Your task to perform on an android device: toggle location history Image 0: 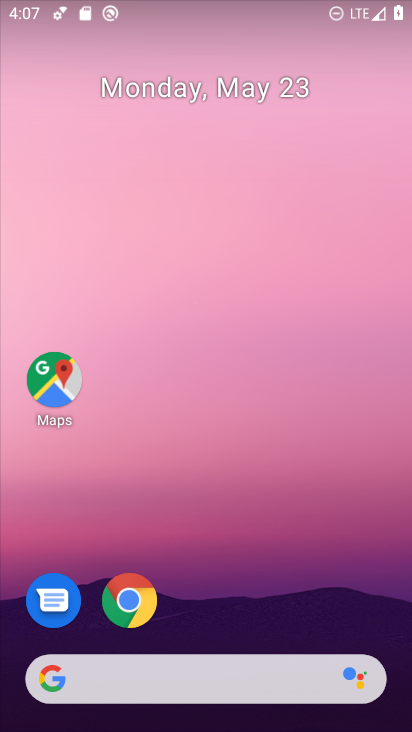
Step 0: click (56, 380)
Your task to perform on an android device: toggle location history Image 1: 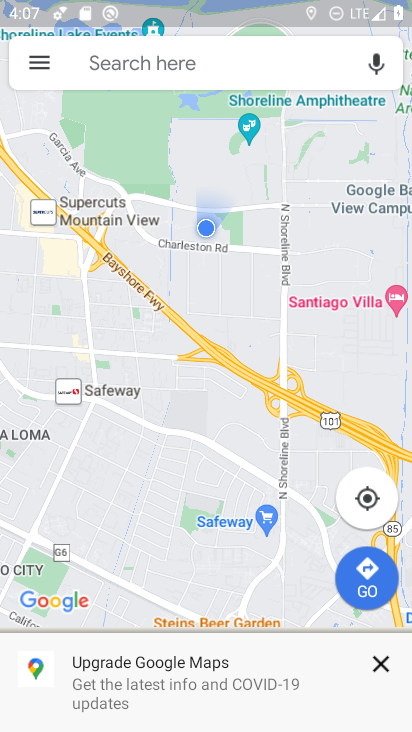
Step 1: click (37, 60)
Your task to perform on an android device: toggle location history Image 2: 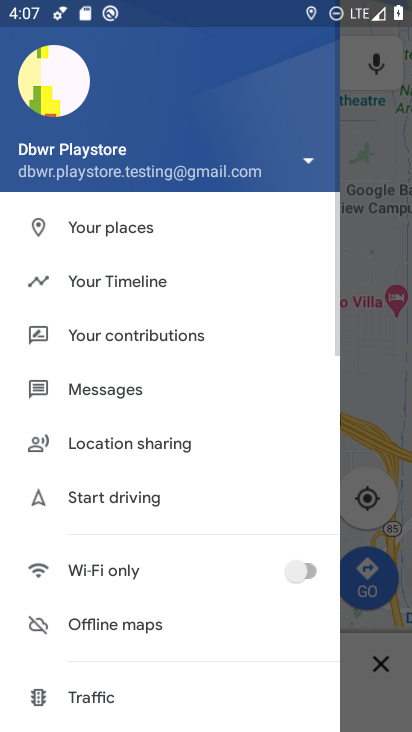
Step 2: click (103, 286)
Your task to perform on an android device: toggle location history Image 3: 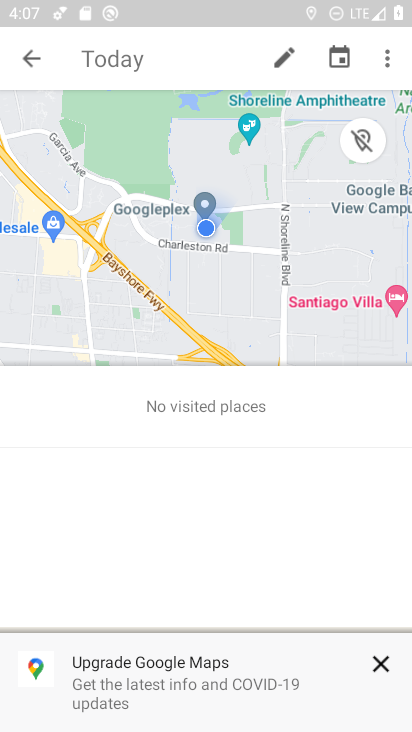
Step 3: click (386, 55)
Your task to perform on an android device: toggle location history Image 4: 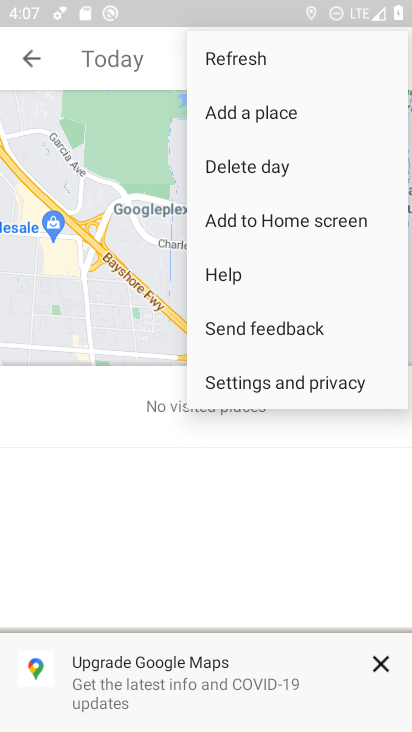
Step 4: click (235, 380)
Your task to perform on an android device: toggle location history Image 5: 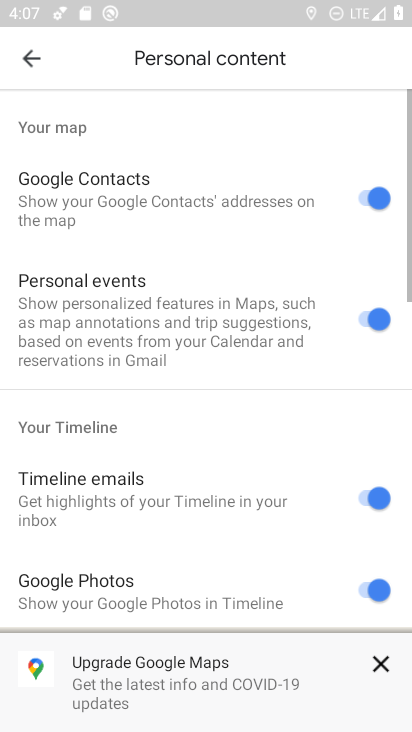
Step 5: drag from (126, 527) to (153, 120)
Your task to perform on an android device: toggle location history Image 6: 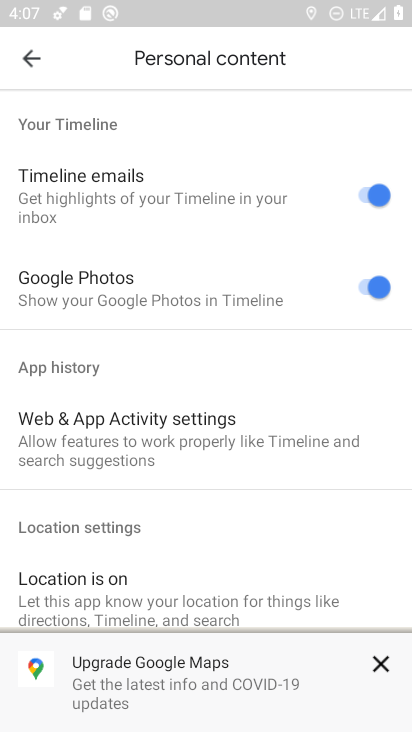
Step 6: drag from (169, 548) to (209, 107)
Your task to perform on an android device: toggle location history Image 7: 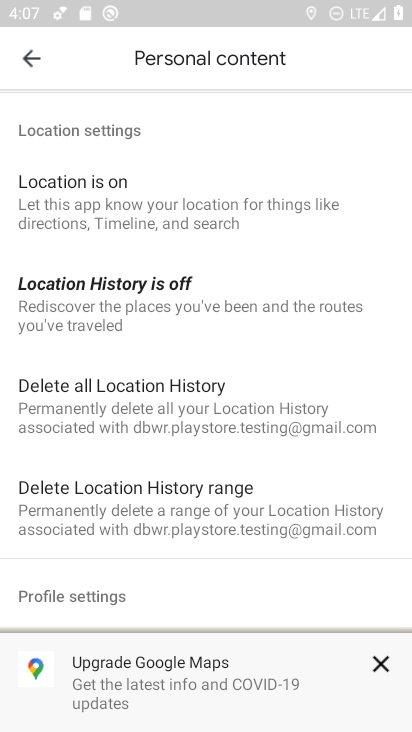
Step 7: click (66, 297)
Your task to perform on an android device: toggle location history Image 8: 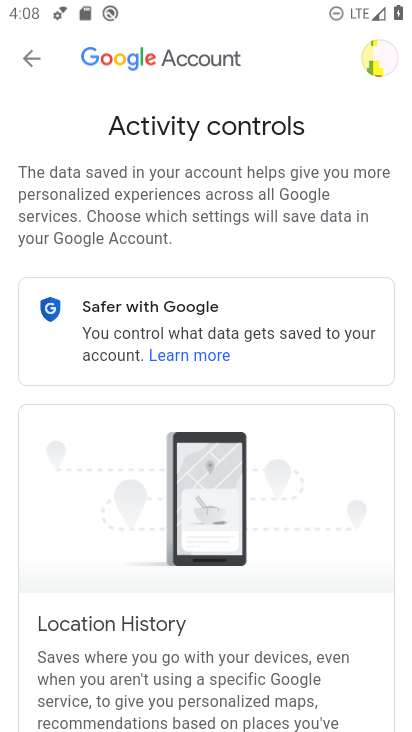
Step 8: drag from (247, 463) to (275, 71)
Your task to perform on an android device: toggle location history Image 9: 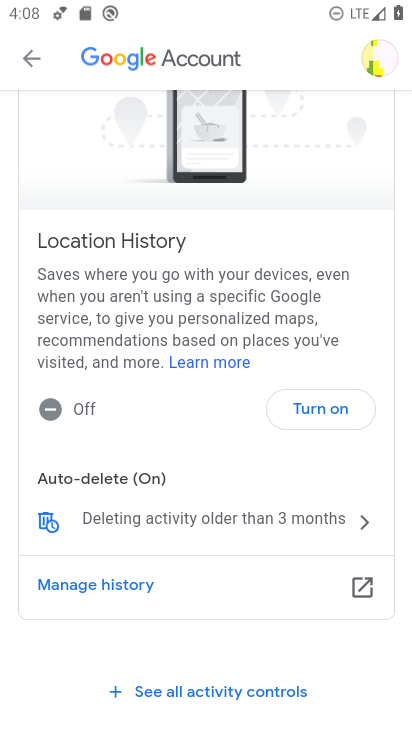
Step 9: click (324, 418)
Your task to perform on an android device: toggle location history Image 10: 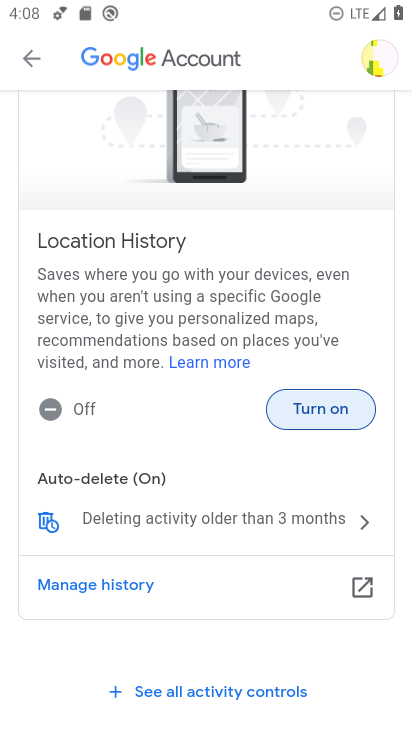
Step 10: click (324, 418)
Your task to perform on an android device: toggle location history Image 11: 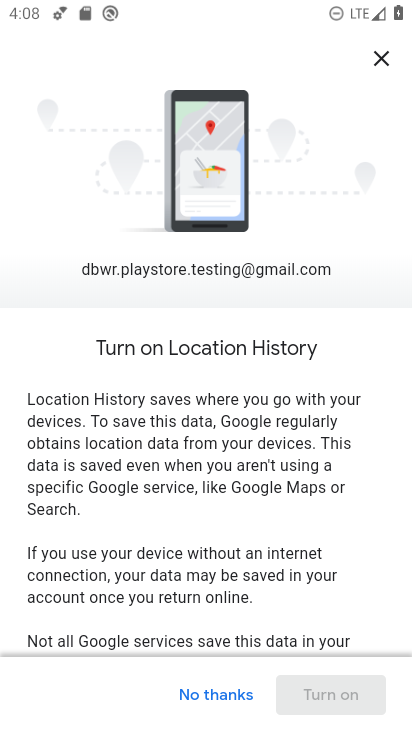
Step 11: drag from (225, 578) to (274, 61)
Your task to perform on an android device: toggle location history Image 12: 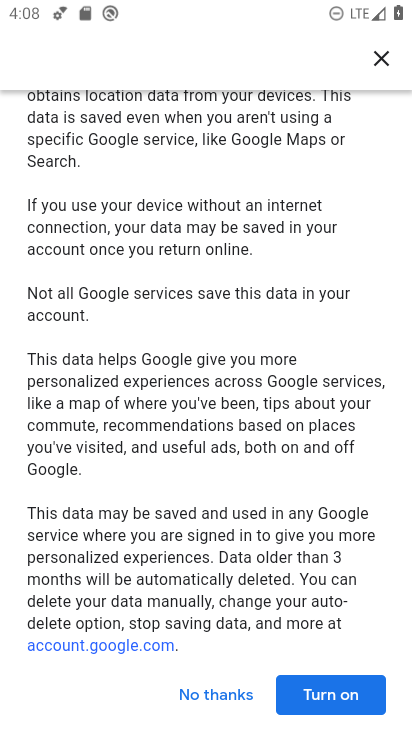
Step 12: click (299, 700)
Your task to perform on an android device: toggle location history Image 13: 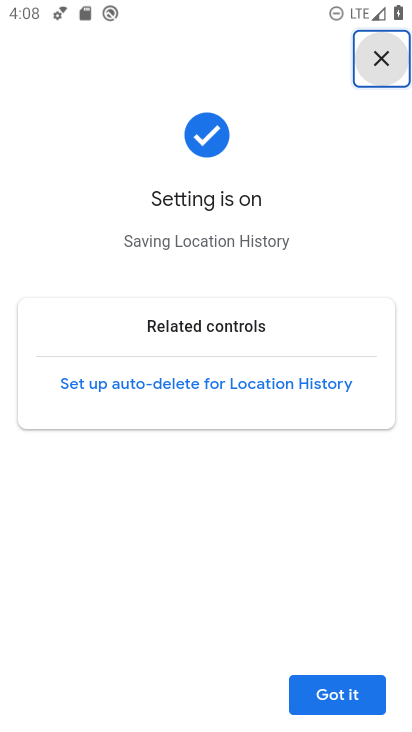
Step 13: click (340, 703)
Your task to perform on an android device: toggle location history Image 14: 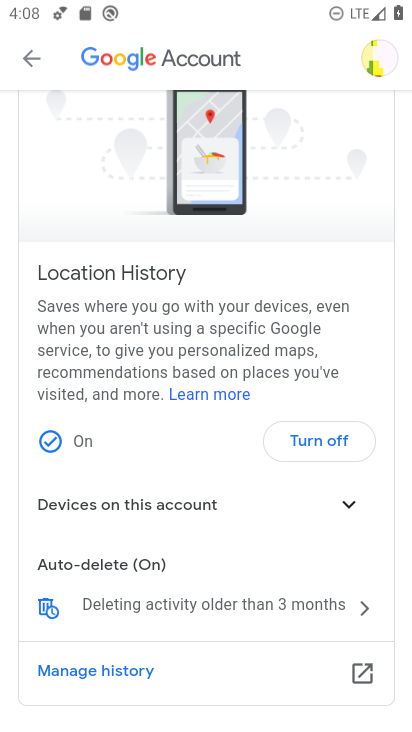
Step 14: task complete